Your task to perform on an android device: Clear all items from cart on newegg.com. Search for bose soundsport free on newegg.com, select the first entry, add it to the cart, then select checkout. Image 0: 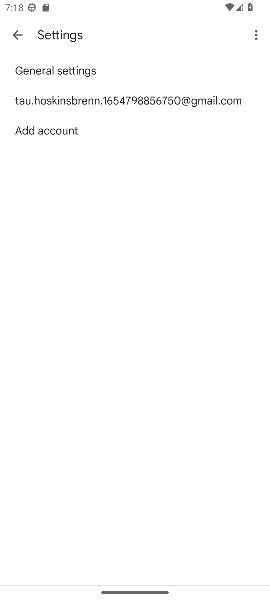
Step 0: press home button
Your task to perform on an android device: Clear all items from cart on newegg.com. Search for bose soundsport free on newegg.com, select the first entry, add it to the cart, then select checkout. Image 1: 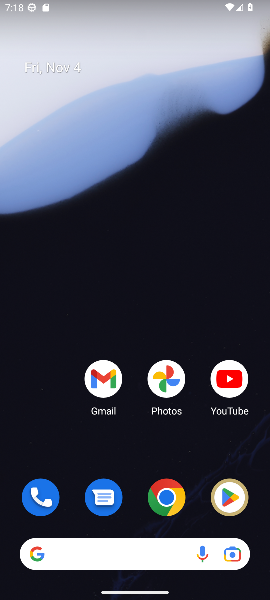
Step 1: click (169, 499)
Your task to perform on an android device: Clear all items from cart on newegg.com. Search for bose soundsport free on newegg.com, select the first entry, add it to the cart, then select checkout. Image 2: 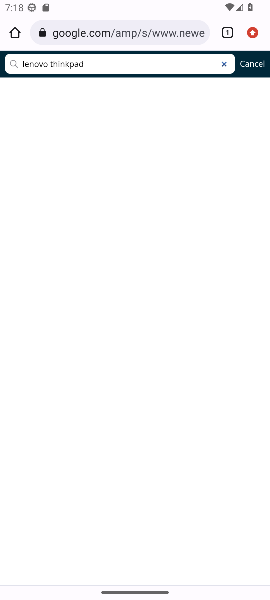
Step 2: click (107, 33)
Your task to perform on an android device: Clear all items from cart on newegg.com. Search for bose soundsport free on newegg.com, select the first entry, add it to the cart, then select checkout. Image 3: 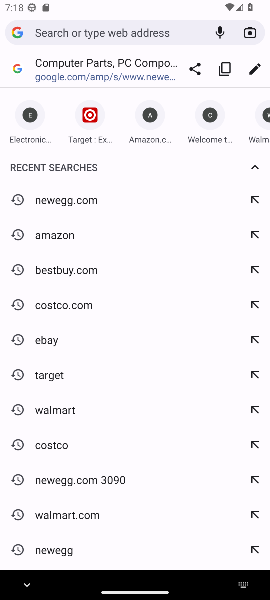
Step 3: click (75, 206)
Your task to perform on an android device: Clear all items from cart on newegg.com. Search for bose soundsport free on newegg.com, select the first entry, add it to the cart, then select checkout. Image 4: 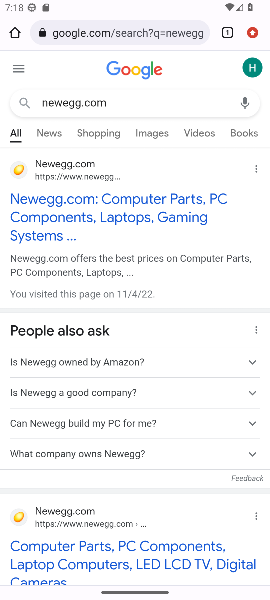
Step 4: click (75, 206)
Your task to perform on an android device: Clear all items from cart on newegg.com. Search for bose soundsport free on newegg.com, select the first entry, add it to the cart, then select checkout. Image 5: 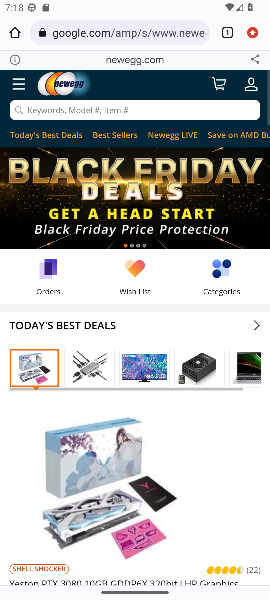
Step 5: click (214, 83)
Your task to perform on an android device: Clear all items from cart on newegg.com. Search for bose soundsport free on newegg.com, select the first entry, add it to the cart, then select checkout. Image 6: 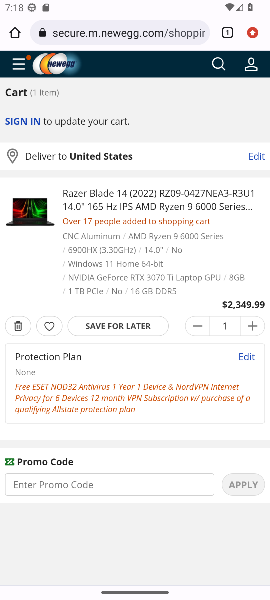
Step 6: click (18, 328)
Your task to perform on an android device: Clear all items from cart on newegg.com. Search for bose soundsport free on newegg.com, select the first entry, add it to the cart, then select checkout. Image 7: 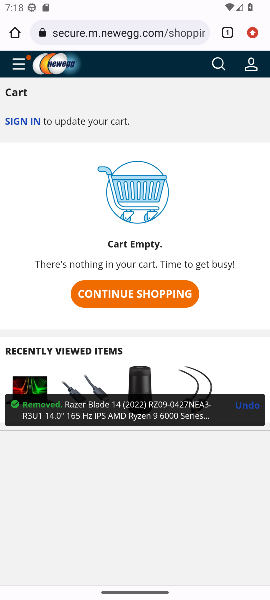
Step 7: click (154, 296)
Your task to perform on an android device: Clear all items from cart on newegg.com. Search for bose soundsport free on newegg.com, select the first entry, add it to the cart, then select checkout. Image 8: 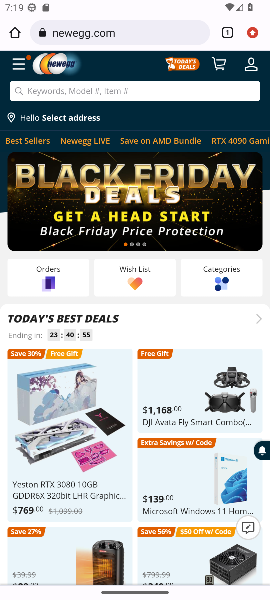
Step 8: click (87, 93)
Your task to perform on an android device: Clear all items from cart on newegg.com. Search for bose soundsport free on newegg.com, select the first entry, add it to the cart, then select checkout. Image 9: 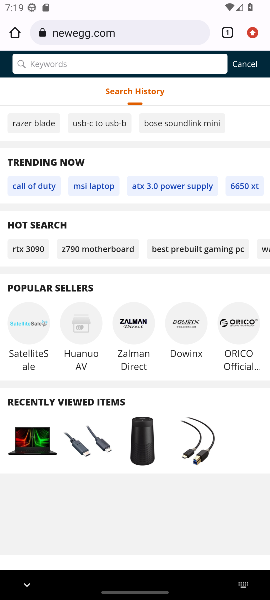
Step 9: type "bose soundsport free"
Your task to perform on an android device: Clear all items from cart on newegg.com. Search for bose soundsport free on newegg.com, select the first entry, add it to the cart, then select checkout. Image 10: 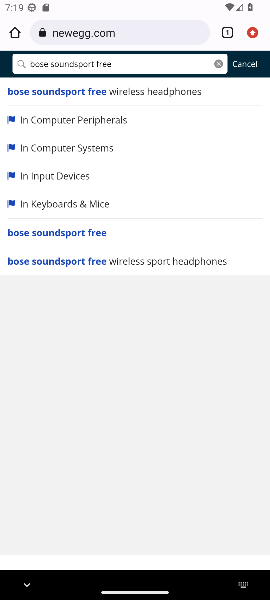
Step 10: click (81, 92)
Your task to perform on an android device: Clear all items from cart on newegg.com. Search for bose soundsport free on newegg.com, select the first entry, add it to the cart, then select checkout. Image 11: 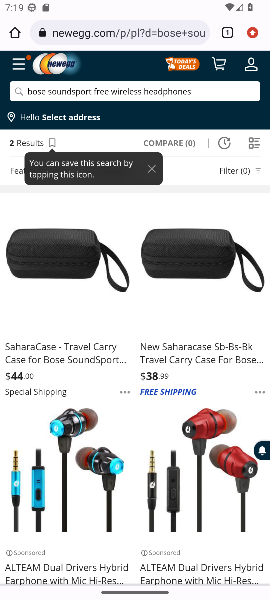
Step 11: click (48, 322)
Your task to perform on an android device: Clear all items from cart on newegg.com. Search for bose soundsport free on newegg.com, select the first entry, add it to the cart, then select checkout. Image 12: 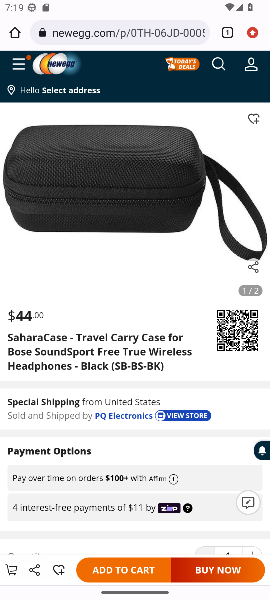
Step 12: click (136, 570)
Your task to perform on an android device: Clear all items from cart on newegg.com. Search for bose soundsport free on newegg.com, select the first entry, add it to the cart, then select checkout. Image 13: 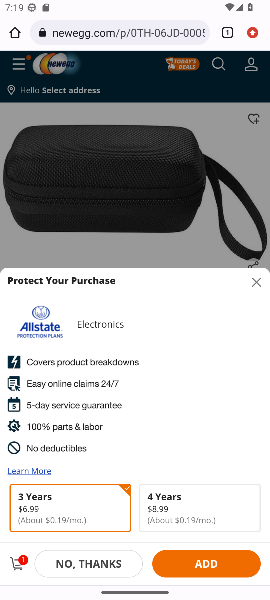
Step 13: click (16, 568)
Your task to perform on an android device: Clear all items from cart on newegg.com. Search for bose soundsport free on newegg.com, select the first entry, add it to the cart, then select checkout. Image 14: 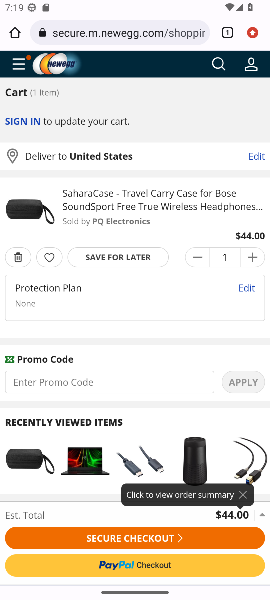
Step 14: click (107, 542)
Your task to perform on an android device: Clear all items from cart on newegg.com. Search for bose soundsport free on newegg.com, select the first entry, add it to the cart, then select checkout. Image 15: 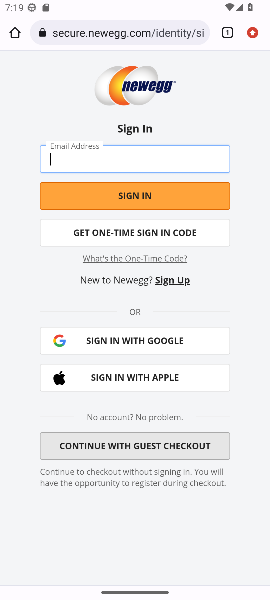
Step 15: task complete